Your task to perform on an android device: turn off priority inbox in the gmail app Image 0: 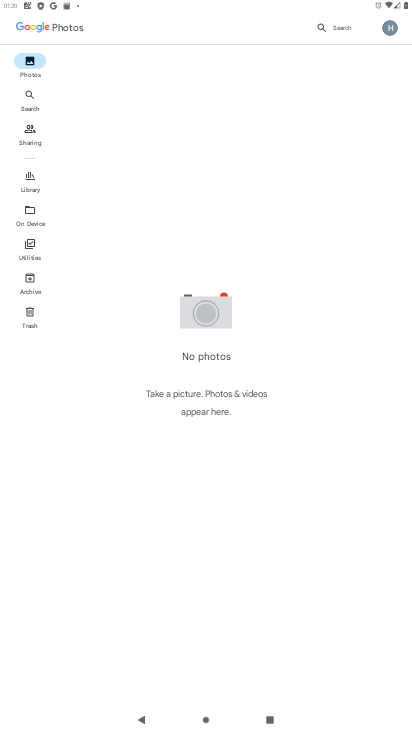
Step 0: press home button
Your task to perform on an android device: turn off priority inbox in the gmail app Image 1: 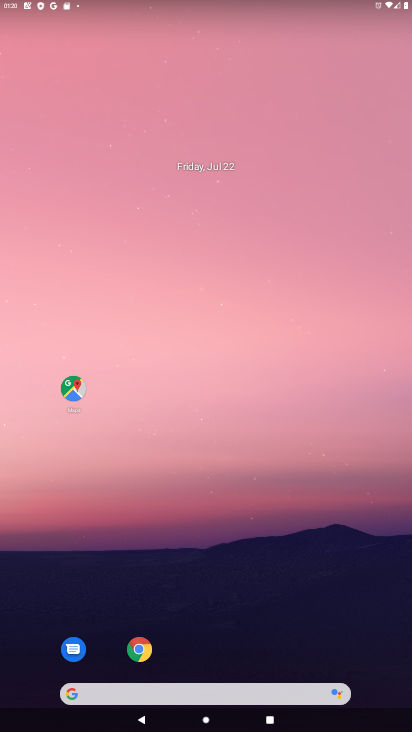
Step 1: drag from (358, 587) to (337, 75)
Your task to perform on an android device: turn off priority inbox in the gmail app Image 2: 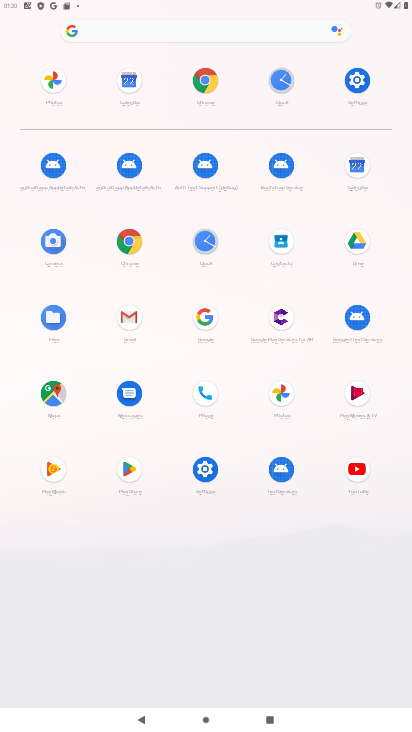
Step 2: click (128, 323)
Your task to perform on an android device: turn off priority inbox in the gmail app Image 3: 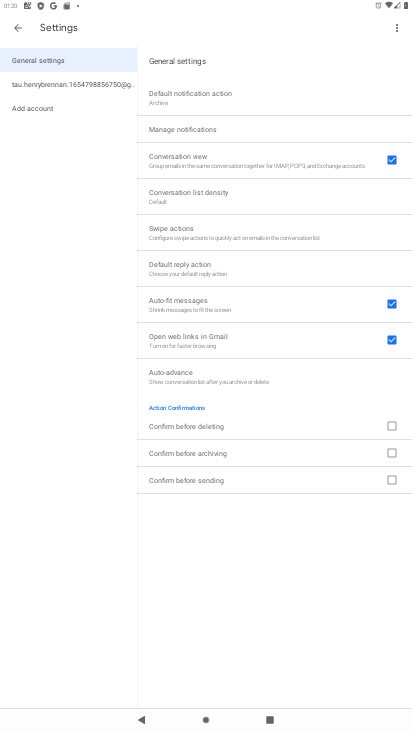
Step 3: click (116, 83)
Your task to perform on an android device: turn off priority inbox in the gmail app Image 4: 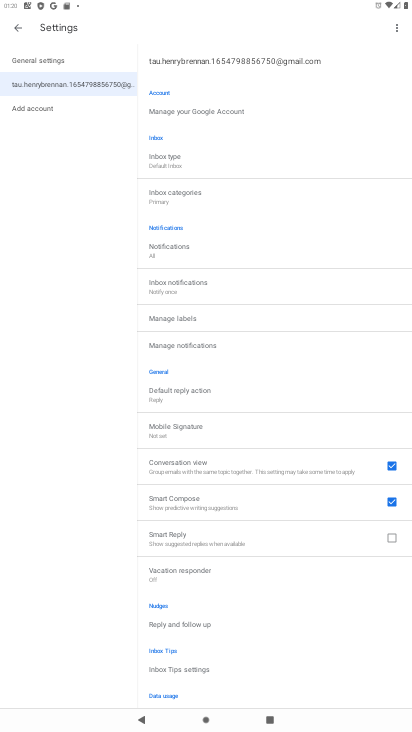
Step 4: click (205, 168)
Your task to perform on an android device: turn off priority inbox in the gmail app Image 5: 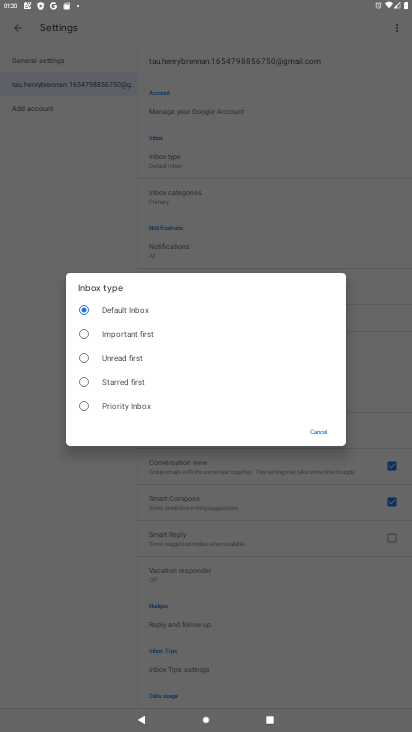
Step 5: click (99, 163)
Your task to perform on an android device: turn off priority inbox in the gmail app Image 6: 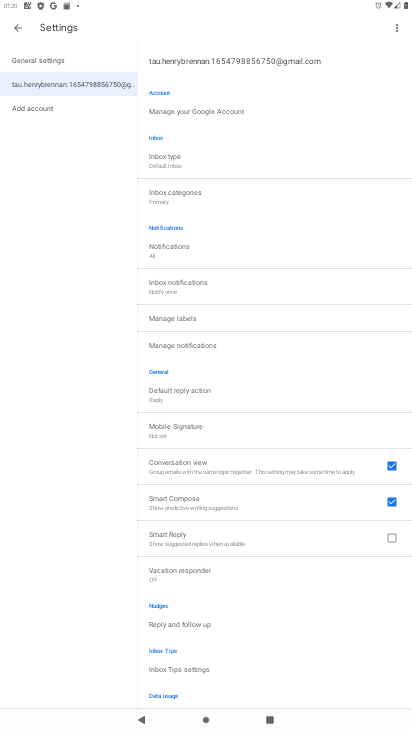
Step 6: click (257, 161)
Your task to perform on an android device: turn off priority inbox in the gmail app Image 7: 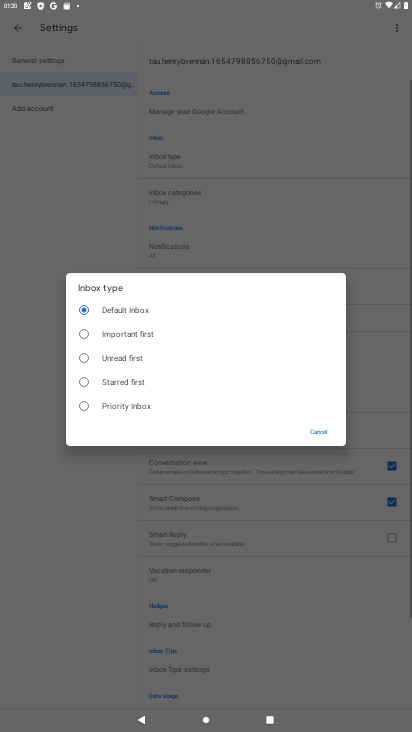
Step 7: task complete